Your task to perform on an android device: Open Youtube and go to "Your channel" Image 0: 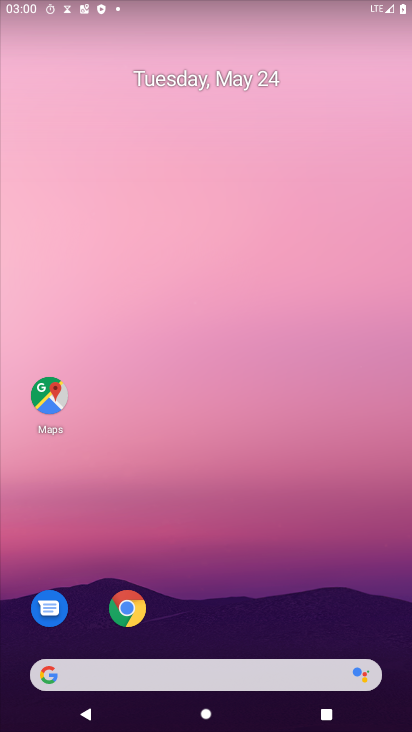
Step 0: drag from (244, 612) to (234, 267)
Your task to perform on an android device: Open Youtube and go to "Your channel" Image 1: 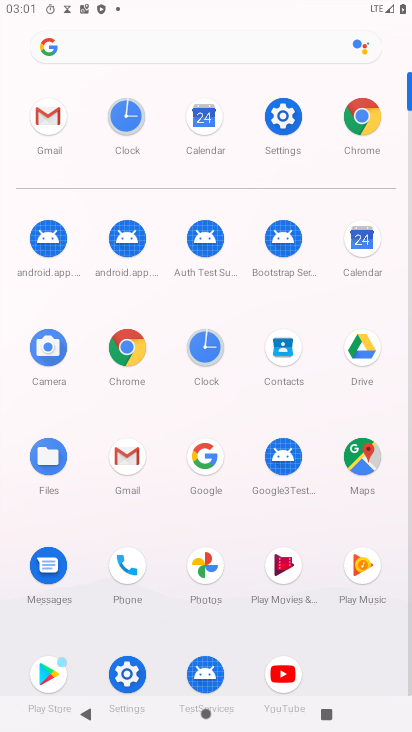
Step 1: click (283, 665)
Your task to perform on an android device: Open Youtube and go to "Your channel" Image 2: 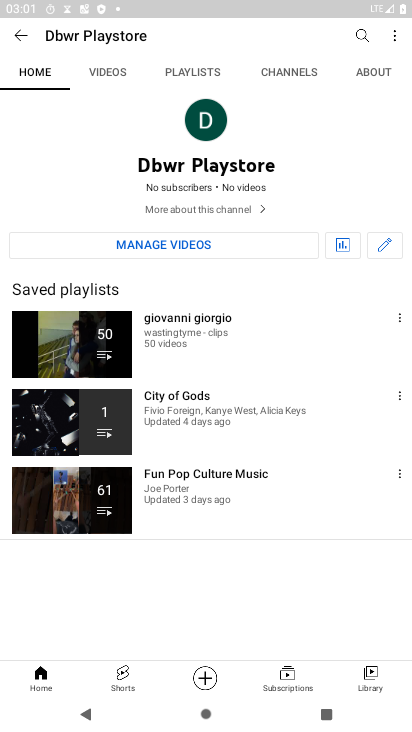
Step 2: task complete